Your task to perform on an android device: change keyboard looks Image 0: 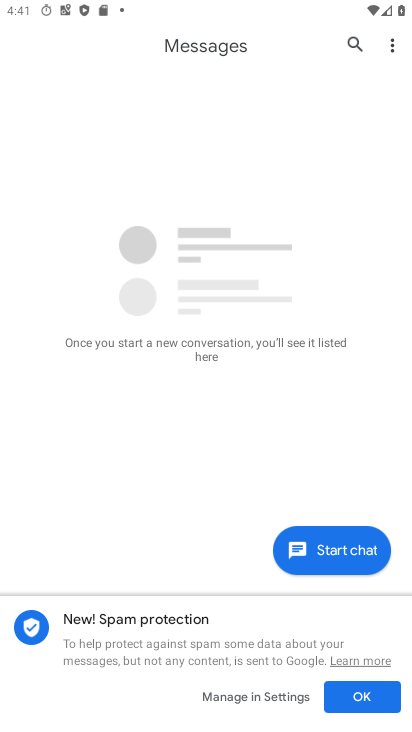
Step 0: press back button
Your task to perform on an android device: change keyboard looks Image 1: 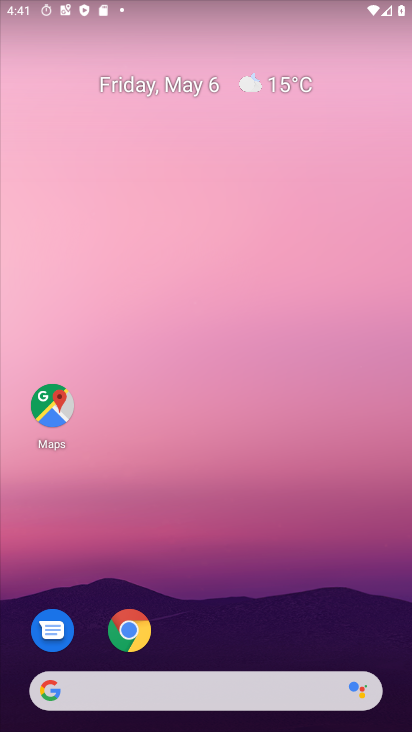
Step 1: drag from (203, 562) to (310, 10)
Your task to perform on an android device: change keyboard looks Image 2: 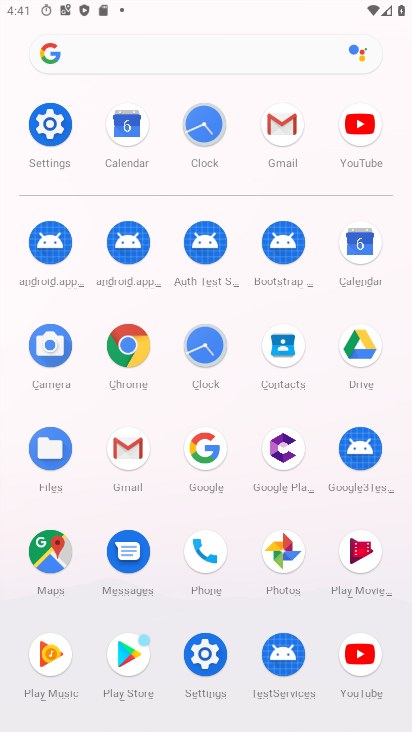
Step 2: click (44, 125)
Your task to perform on an android device: change keyboard looks Image 3: 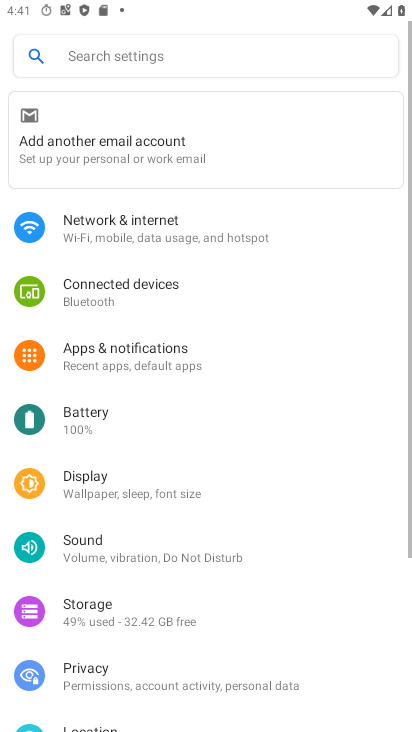
Step 3: drag from (211, 583) to (329, 92)
Your task to perform on an android device: change keyboard looks Image 4: 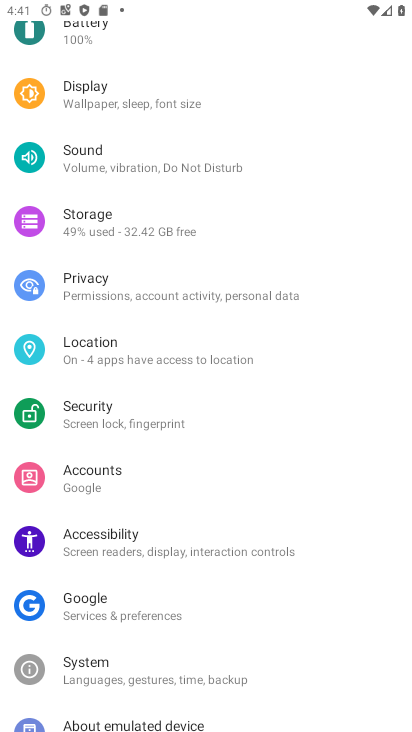
Step 4: drag from (148, 646) to (287, 53)
Your task to perform on an android device: change keyboard looks Image 5: 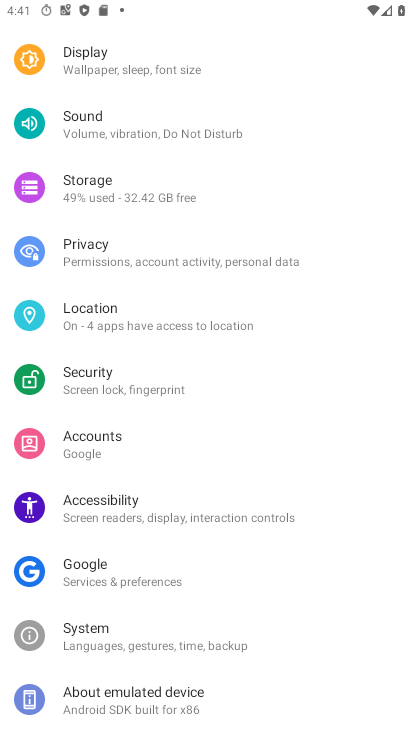
Step 5: click (135, 636)
Your task to perform on an android device: change keyboard looks Image 6: 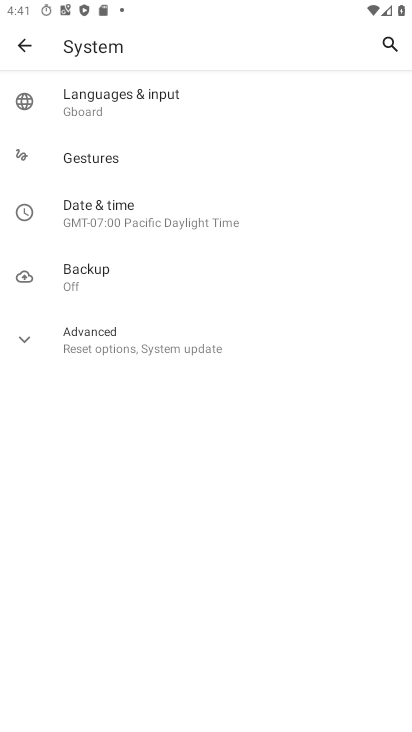
Step 6: click (97, 94)
Your task to perform on an android device: change keyboard looks Image 7: 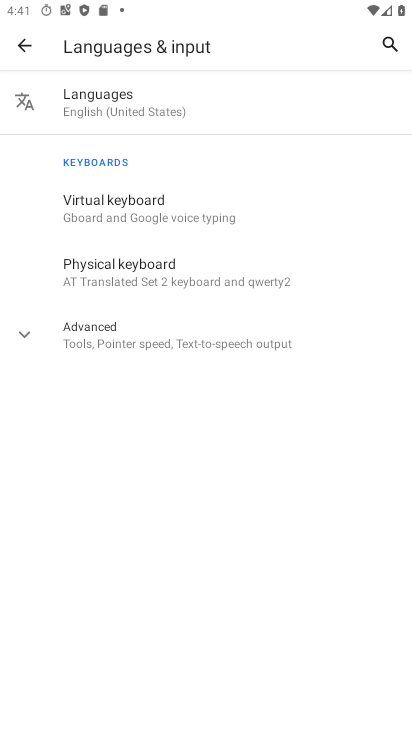
Step 7: click (139, 204)
Your task to perform on an android device: change keyboard looks Image 8: 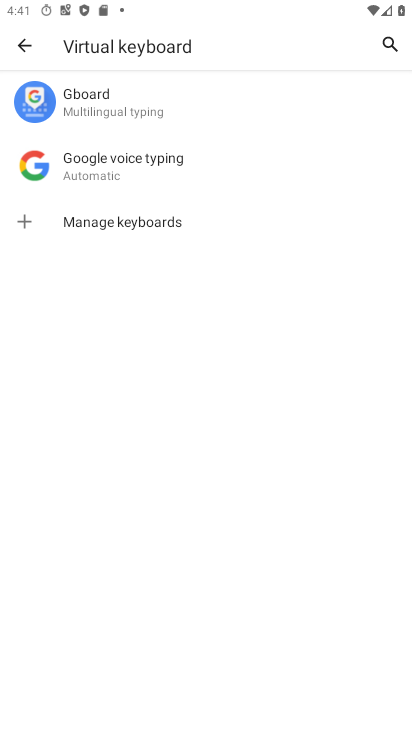
Step 8: click (117, 102)
Your task to perform on an android device: change keyboard looks Image 9: 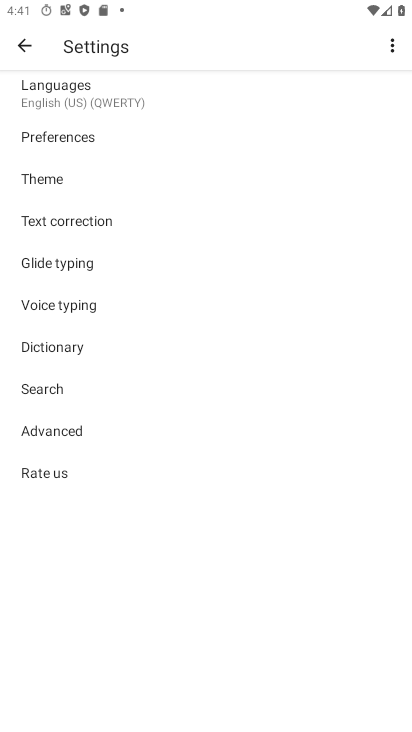
Step 9: click (43, 190)
Your task to perform on an android device: change keyboard looks Image 10: 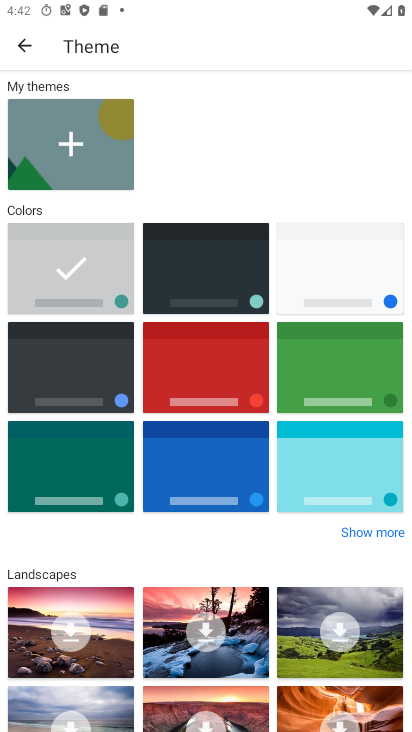
Step 10: click (224, 359)
Your task to perform on an android device: change keyboard looks Image 11: 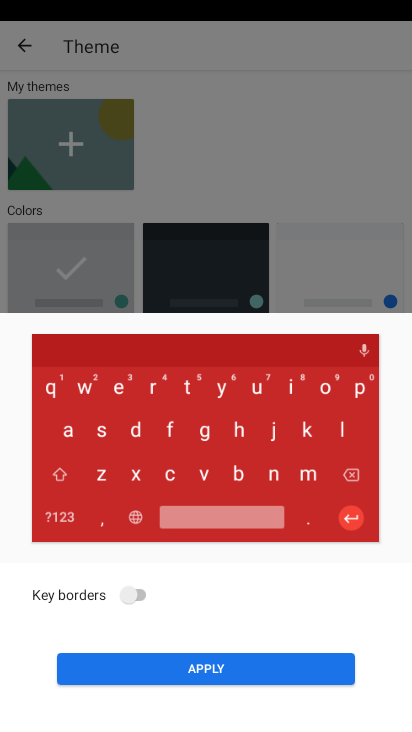
Step 11: click (141, 591)
Your task to perform on an android device: change keyboard looks Image 12: 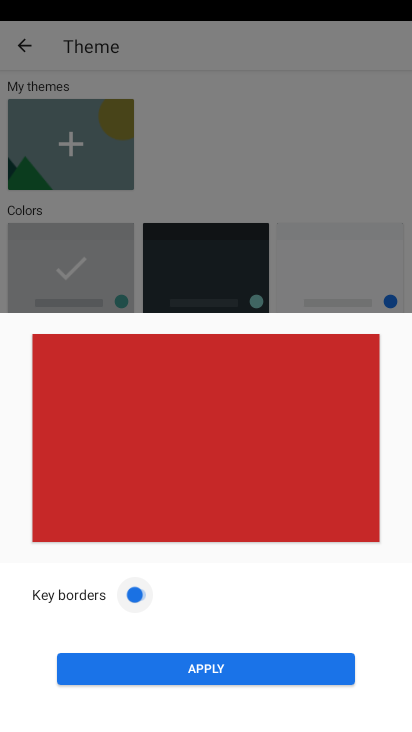
Step 12: click (217, 668)
Your task to perform on an android device: change keyboard looks Image 13: 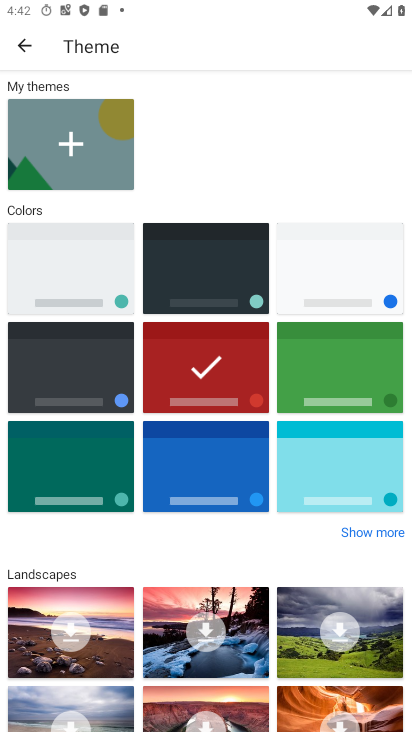
Step 13: task complete